Your task to perform on an android device: turn off improve location accuracy Image 0: 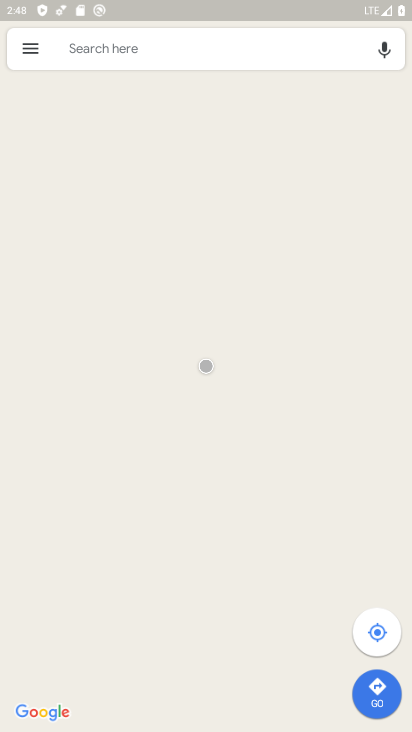
Step 0: press home button
Your task to perform on an android device: turn off improve location accuracy Image 1: 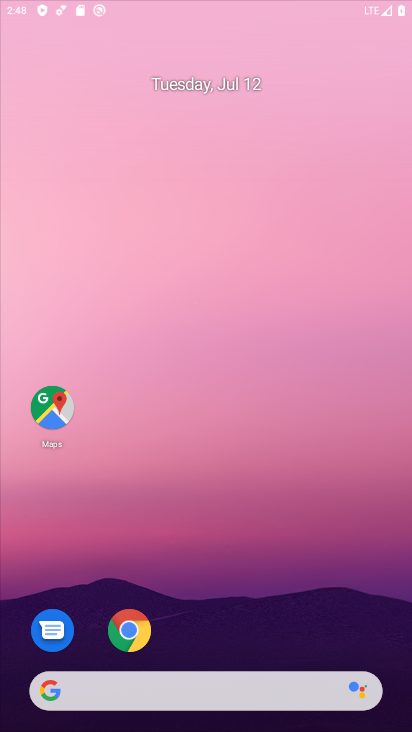
Step 1: drag from (228, 370) to (303, 23)
Your task to perform on an android device: turn off improve location accuracy Image 2: 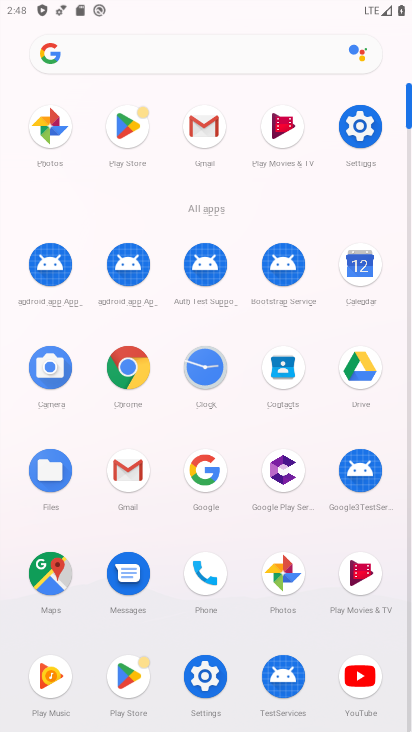
Step 2: click (211, 688)
Your task to perform on an android device: turn off improve location accuracy Image 3: 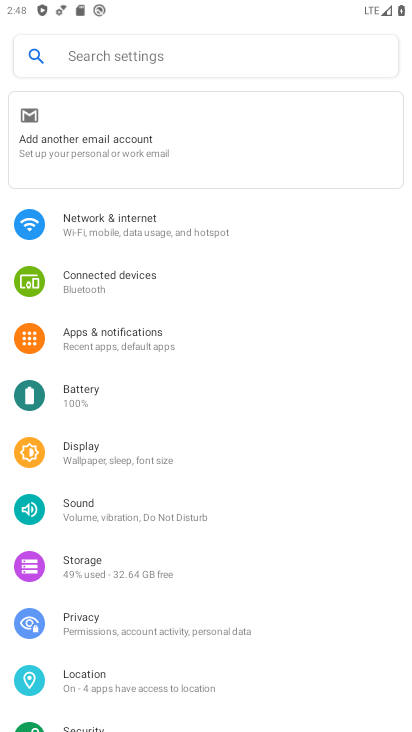
Step 3: click (100, 684)
Your task to perform on an android device: turn off improve location accuracy Image 4: 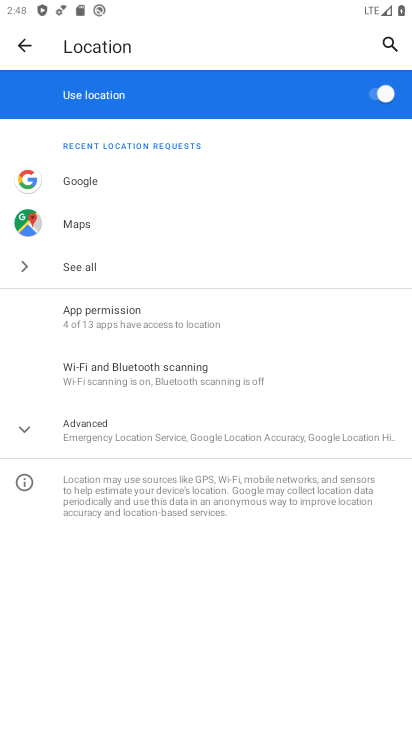
Step 4: click (155, 432)
Your task to perform on an android device: turn off improve location accuracy Image 5: 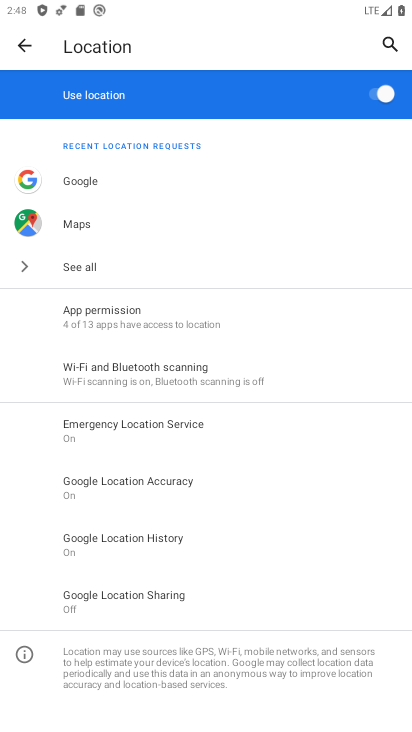
Step 5: click (180, 493)
Your task to perform on an android device: turn off improve location accuracy Image 6: 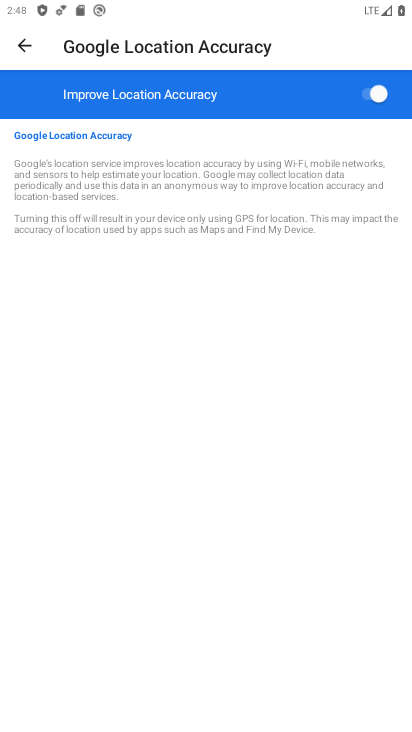
Step 6: click (342, 91)
Your task to perform on an android device: turn off improve location accuracy Image 7: 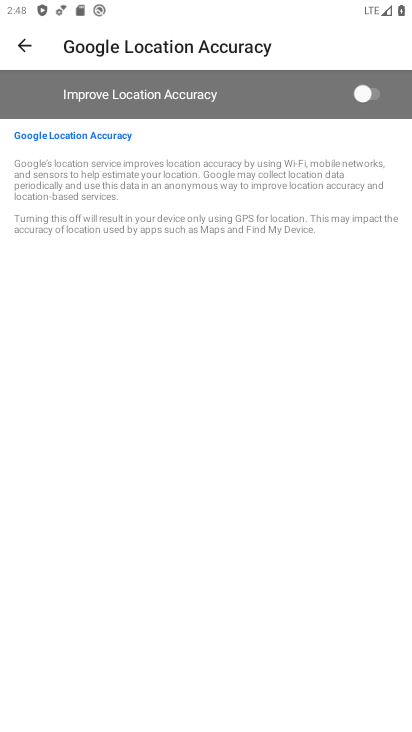
Step 7: task complete